Your task to perform on an android device: Do I have any events this weekend? Image 0: 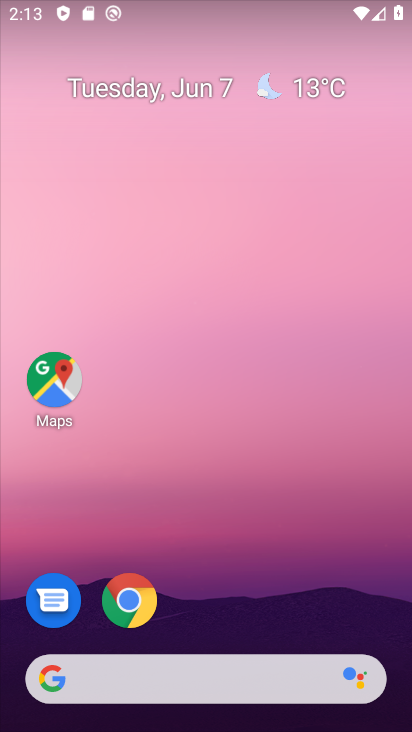
Step 0: drag from (222, 443) to (218, 162)
Your task to perform on an android device: Do I have any events this weekend? Image 1: 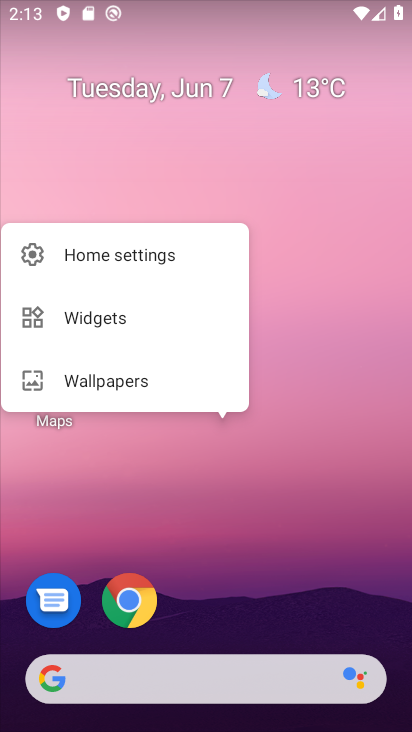
Step 1: drag from (261, 497) to (216, 69)
Your task to perform on an android device: Do I have any events this weekend? Image 2: 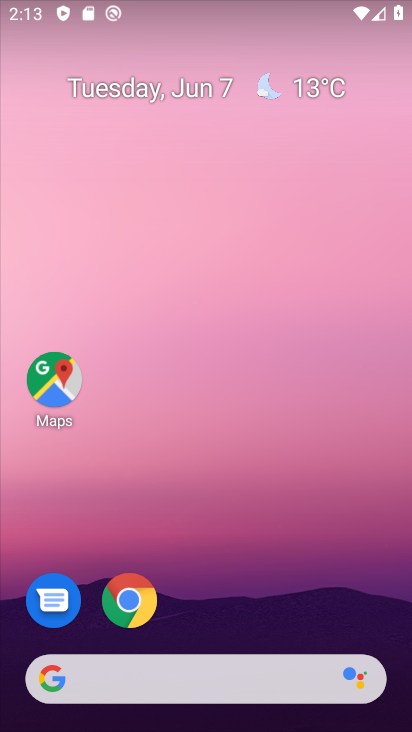
Step 2: drag from (205, 609) to (142, 32)
Your task to perform on an android device: Do I have any events this weekend? Image 3: 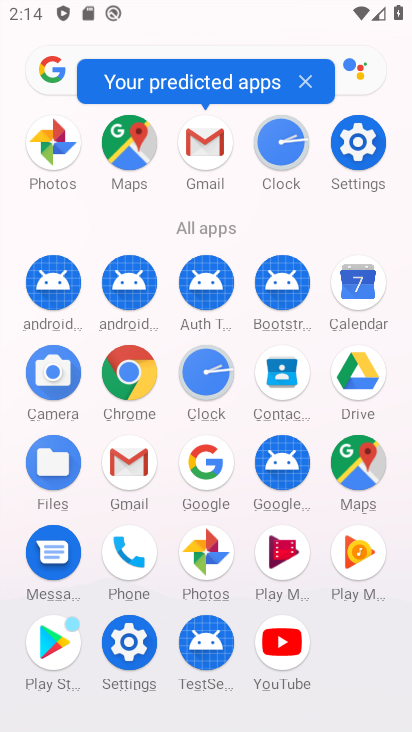
Step 3: click (358, 287)
Your task to perform on an android device: Do I have any events this weekend? Image 4: 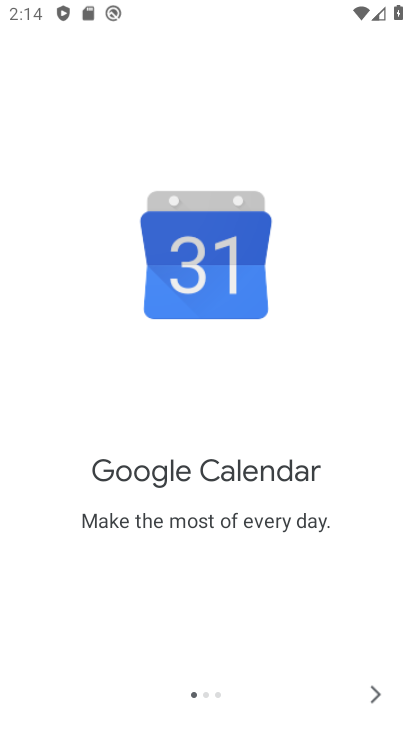
Step 4: click (376, 684)
Your task to perform on an android device: Do I have any events this weekend? Image 5: 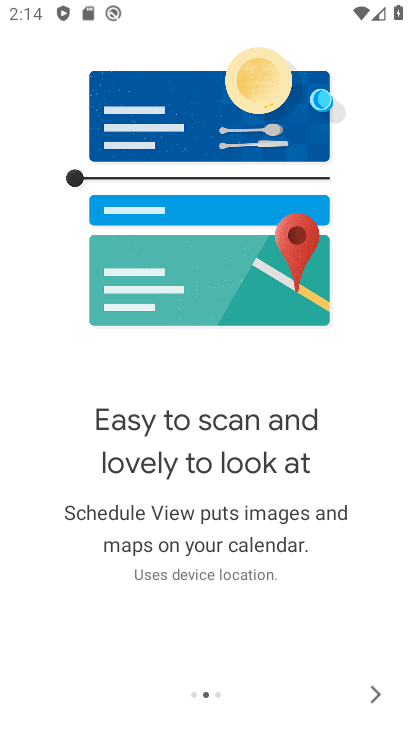
Step 5: click (376, 684)
Your task to perform on an android device: Do I have any events this weekend? Image 6: 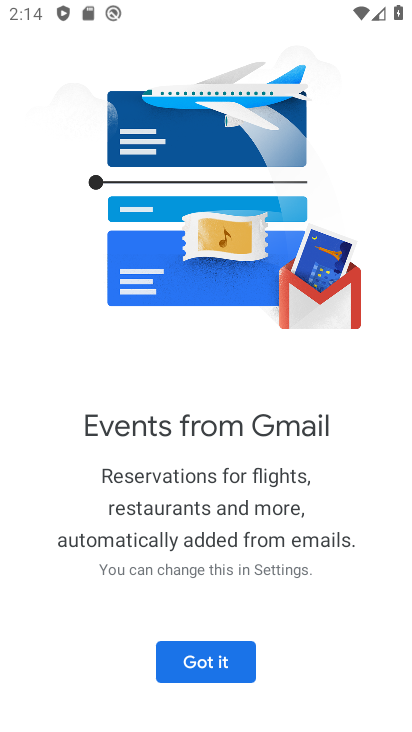
Step 6: click (215, 664)
Your task to perform on an android device: Do I have any events this weekend? Image 7: 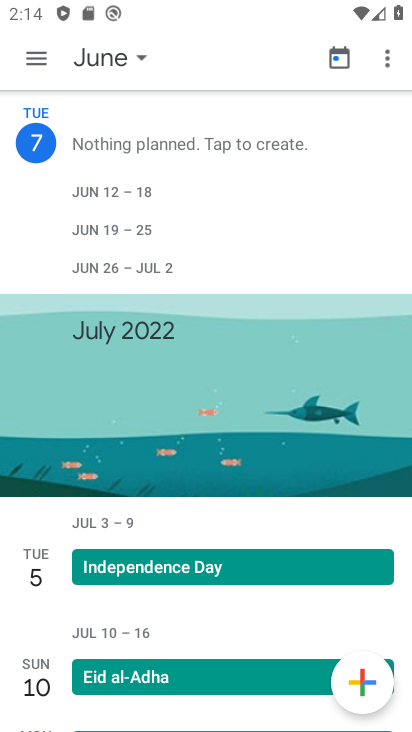
Step 7: click (129, 64)
Your task to perform on an android device: Do I have any events this weekend? Image 8: 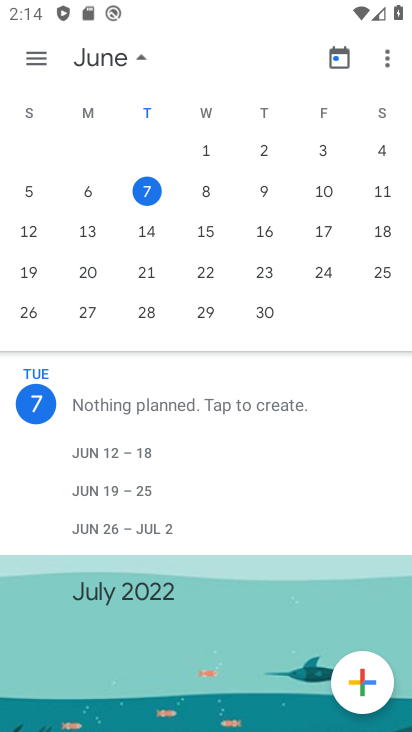
Step 8: click (258, 192)
Your task to perform on an android device: Do I have any events this weekend? Image 9: 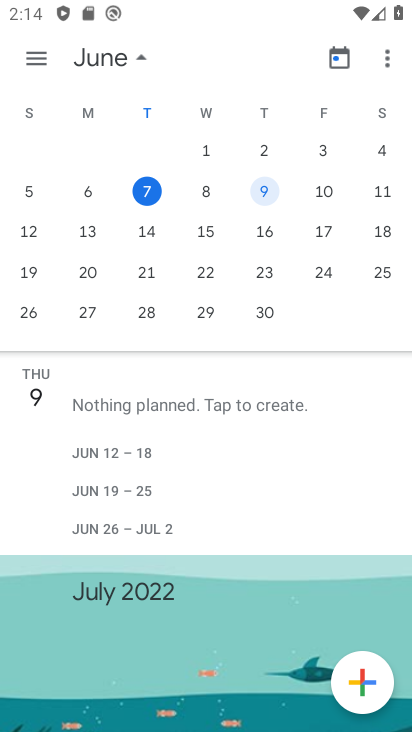
Step 9: task complete